Your task to perform on an android device: Open Google Chrome and click the shortcut for Amazon.com Image 0: 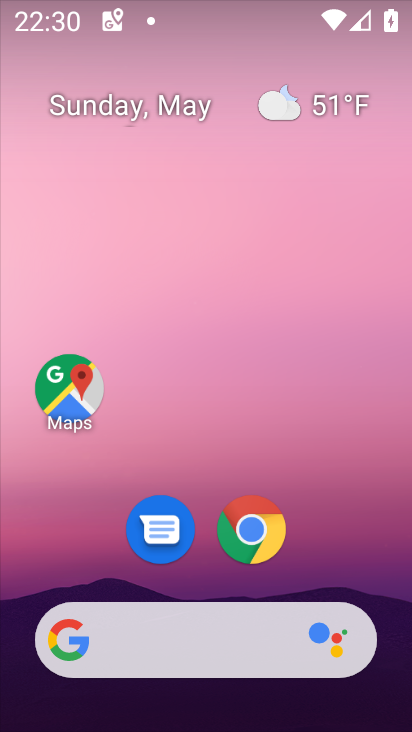
Step 0: drag from (290, 652) to (226, 0)
Your task to perform on an android device: Open Google Chrome and click the shortcut for Amazon.com Image 1: 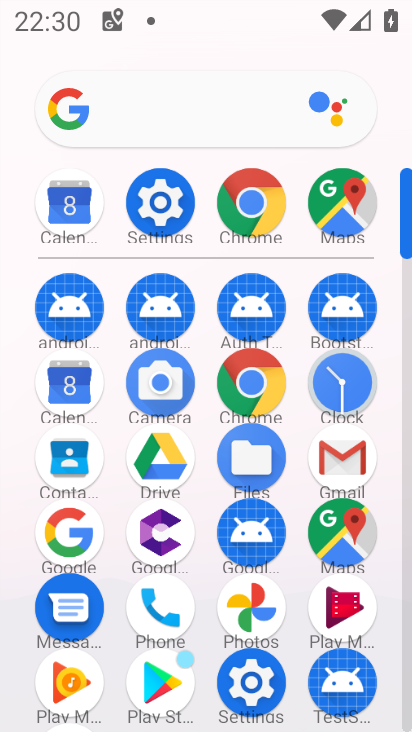
Step 1: click (265, 367)
Your task to perform on an android device: Open Google Chrome and click the shortcut for Amazon.com Image 2: 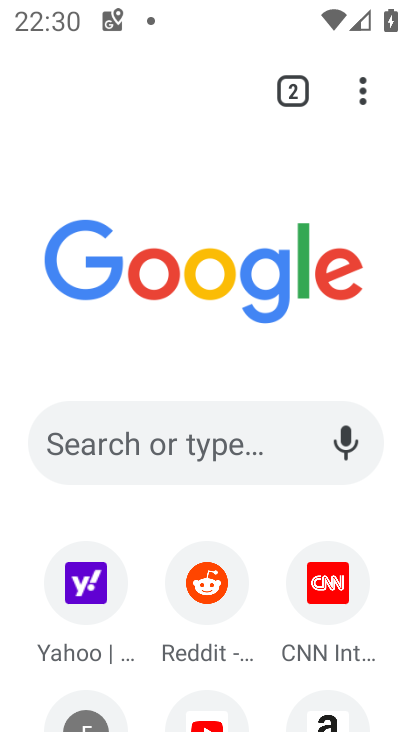
Step 2: drag from (246, 631) to (245, 328)
Your task to perform on an android device: Open Google Chrome and click the shortcut for Amazon.com Image 3: 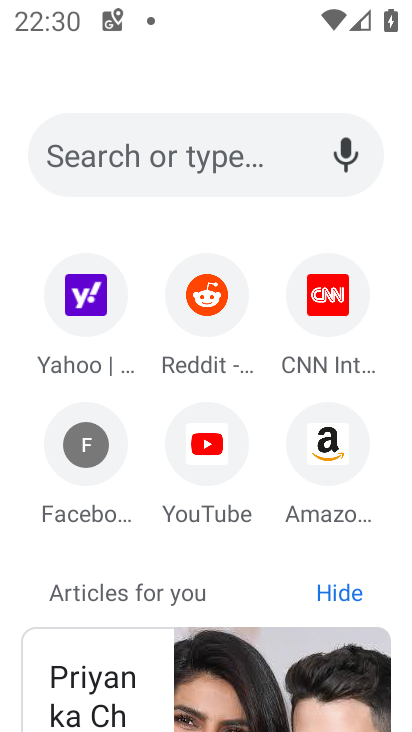
Step 3: click (308, 454)
Your task to perform on an android device: Open Google Chrome and click the shortcut for Amazon.com Image 4: 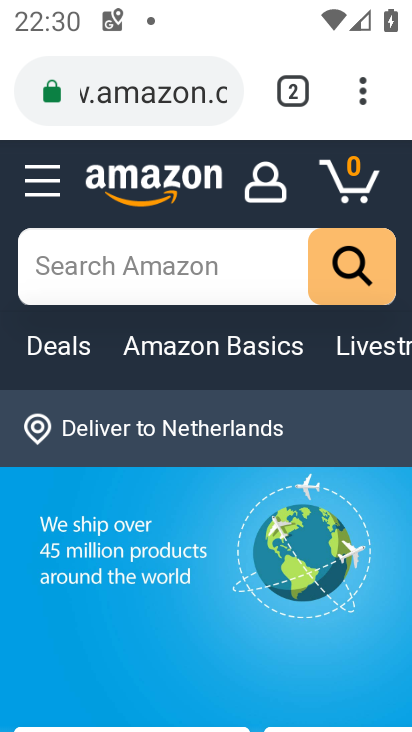
Step 4: drag from (378, 93) to (234, 404)
Your task to perform on an android device: Open Google Chrome and click the shortcut for Amazon.com Image 5: 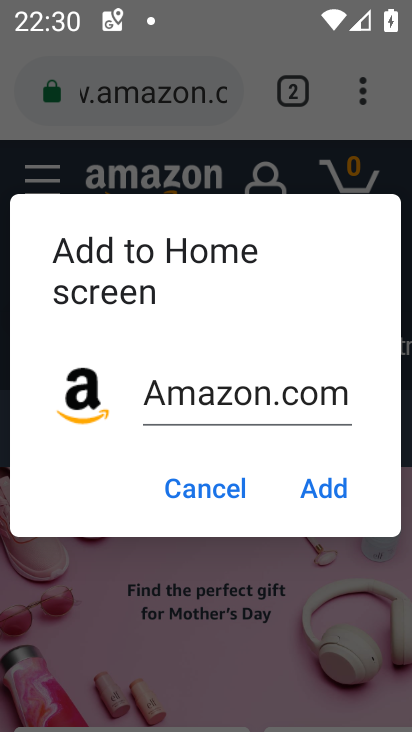
Step 5: click (327, 496)
Your task to perform on an android device: Open Google Chrome and click the shortcut for Amazon.com Image 6: 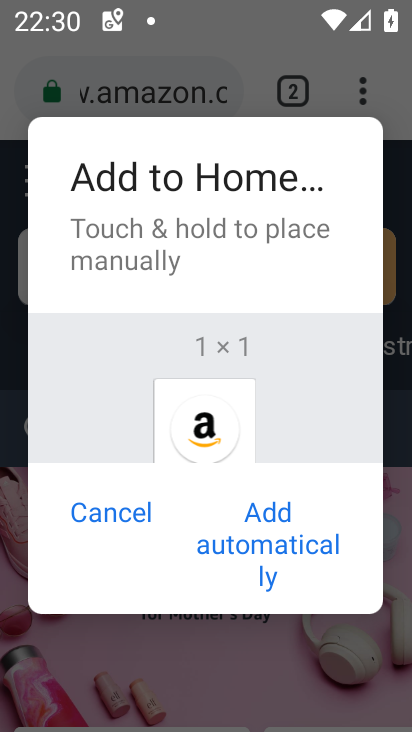
Step 6: click (257, 537)
Your task to perform on an android device: Open Google Chrome and click the shortcut for Amazon.com Image 7: 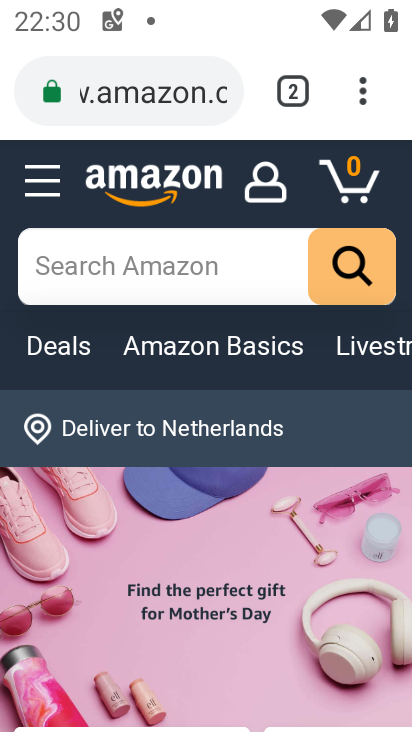
Step 7: task complete